Your task to perform on an android device: change the clock style Image 0: 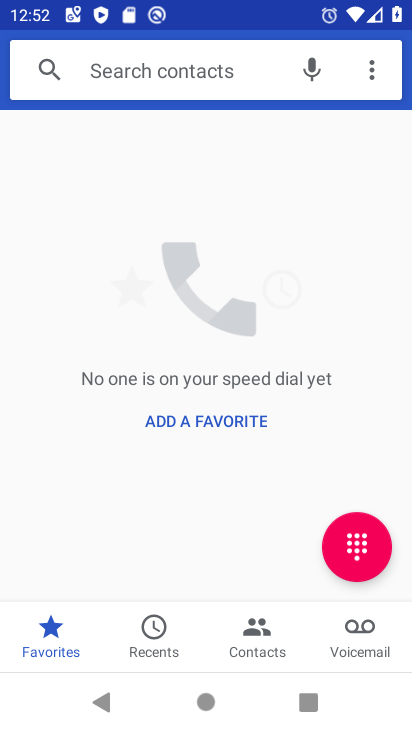
Step 0: press home button
Your task to perform on an android device: change the clock style Image 1: 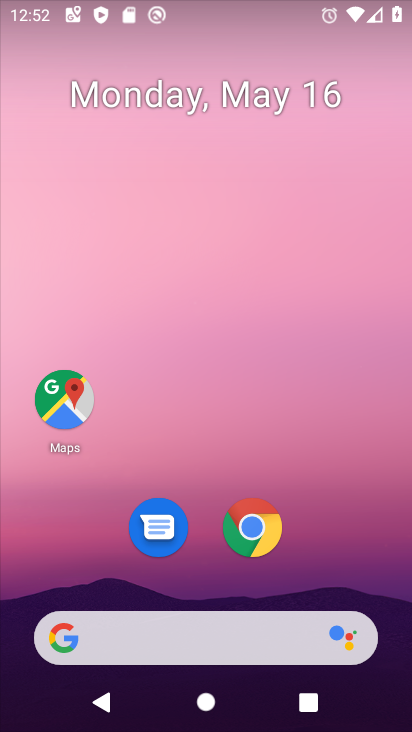
Step 1: drag from (393, 553) to (323, 148)
Your task to perform on an android device: change the clock style Image 2: 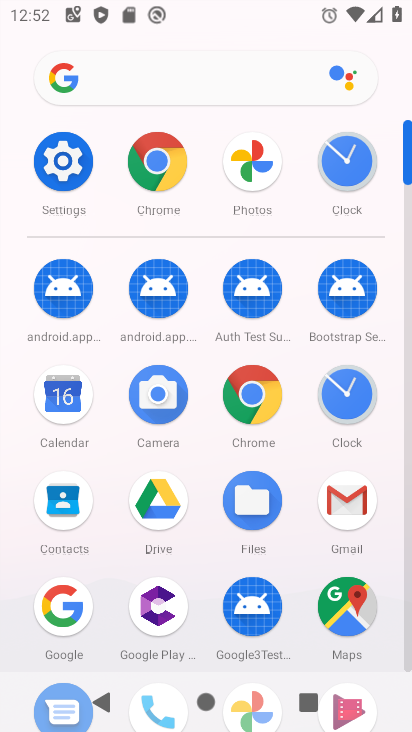
Step 2: click (345, 176)
Your task to perform on an android device: change the clock style Image 3: 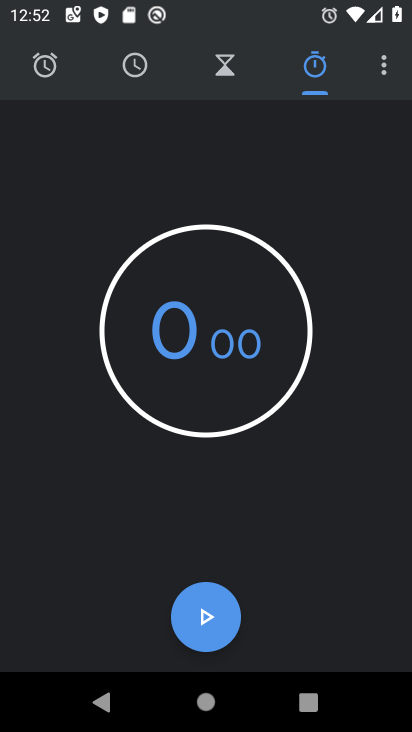
Step 3: click (387, 68)
Your task to perform on an android device: change the clock style Image 4: 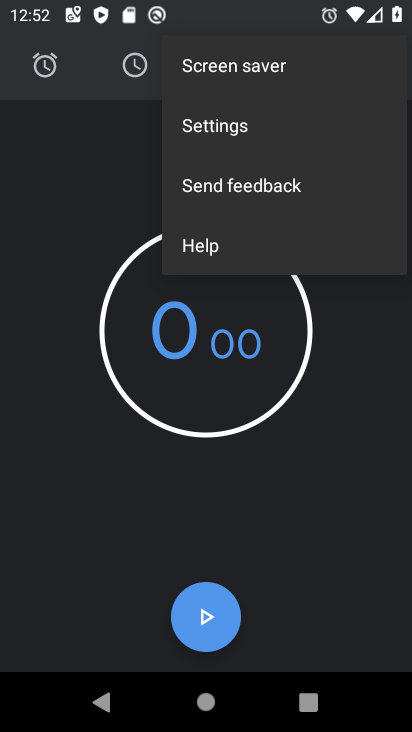
Step 4: click (289, 136)
Your task to perform on an android device: change the clock style Image 5: 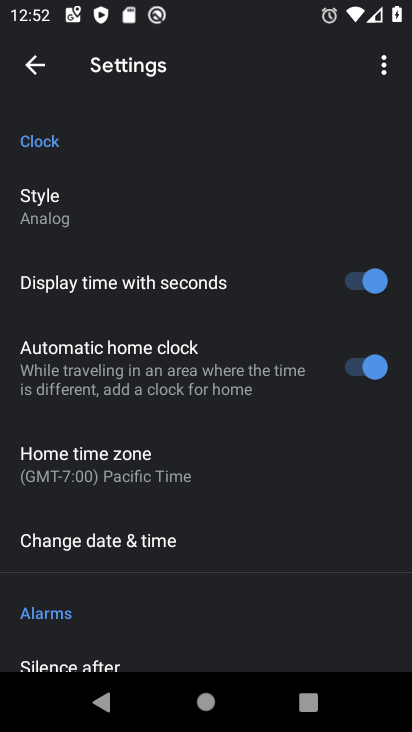
Step 5: click (155, 220)
Your task to perform on an android device: change the clock style Image 6: 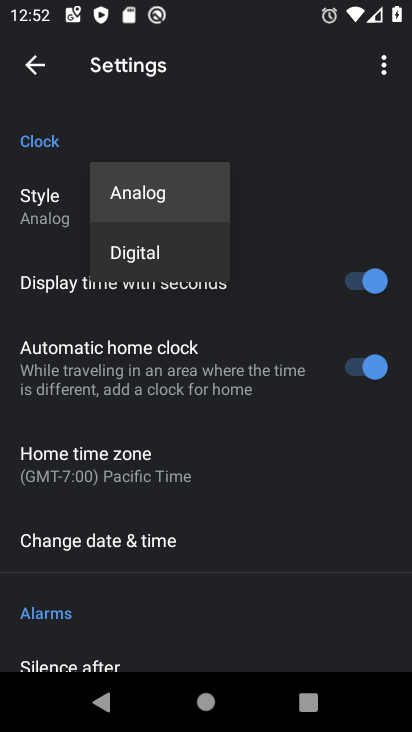
Step 6: click (149, 251)
Your task to perform on an android device: change the clock style Image 7: 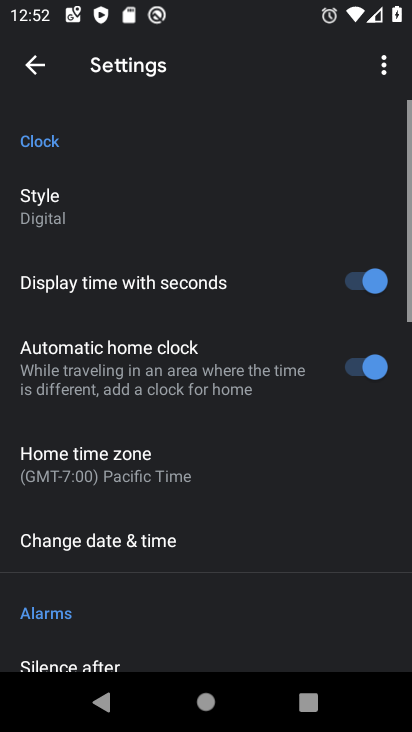
Step 7: task complete